Your task to perform on an android device: set default search engine in the chrome app Image 0: 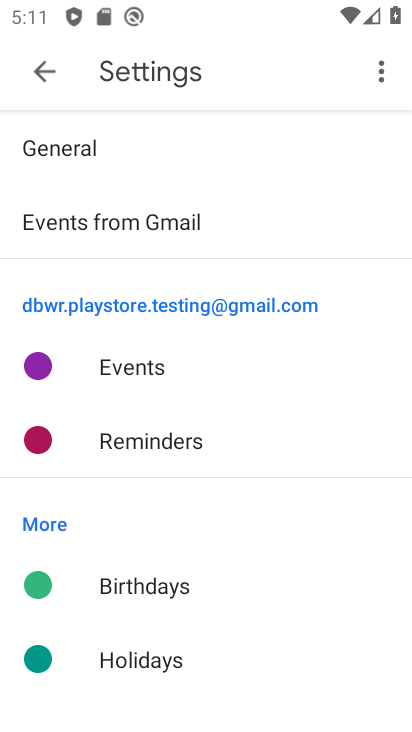
Step 0: press home button
Your task to perform on an android device: set default search engine in the chrome app Image 1: 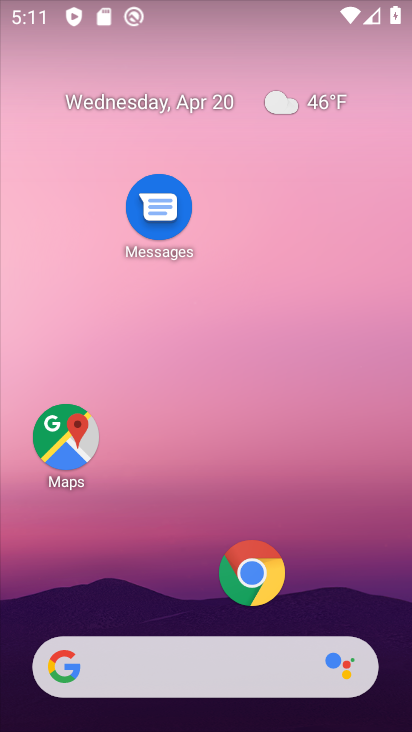
Step 1: click (260, 573)
Your task to perform on an android device: set default search engine in the chrome app Image 2: 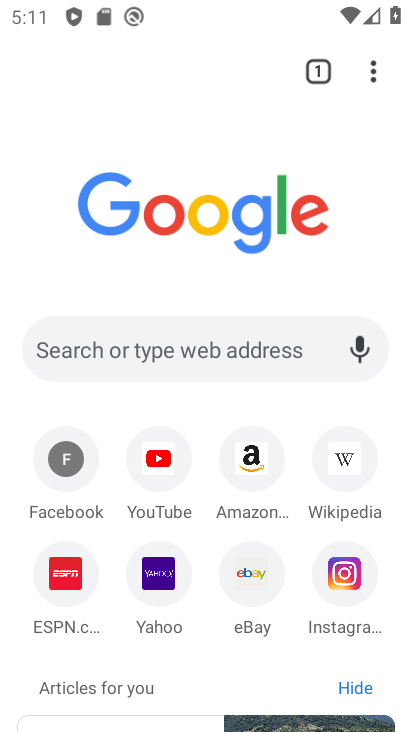
Step 2: click (374, 71)
Your task to perform on an android device: set default search engine in the chrome app Image 3: 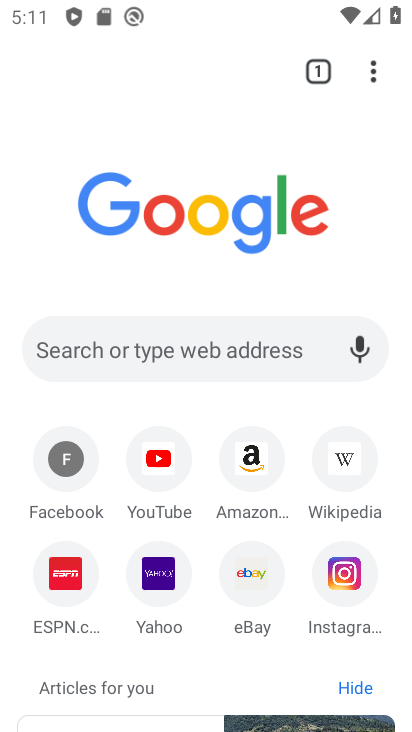
Step 3: drag from (382, 67) to (159, 589)
Your task to perform on an android device: set default search engine in the chrome app Image 4: 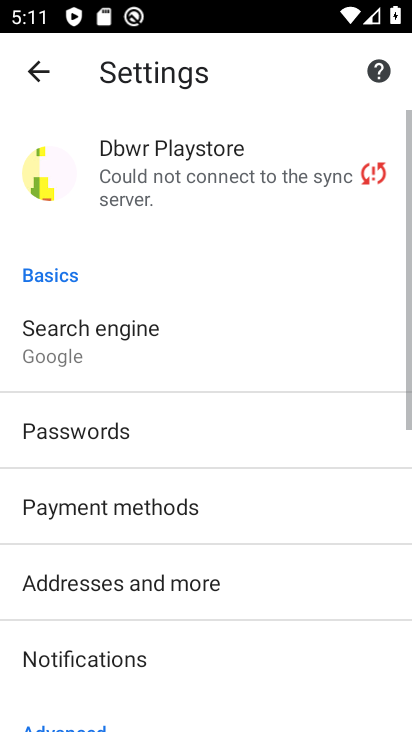
Step 4: click (89, 340)
Your task to perform on an android device: set default search engine in the chrome app Image 5: 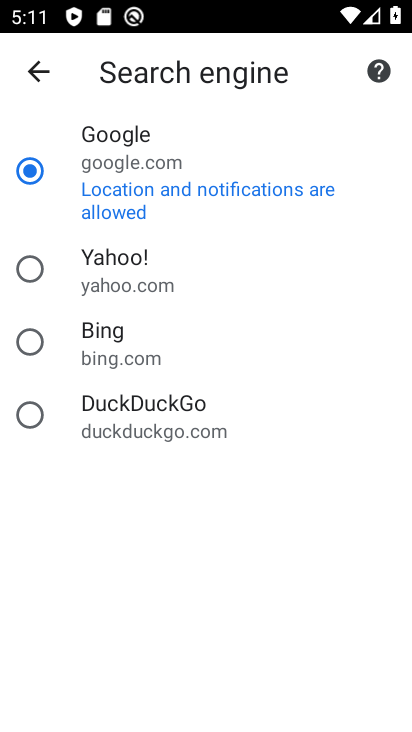
Step 5: click (89, 340)
Your task to perform on an android device: set default search engine in the chrome app Image 6: 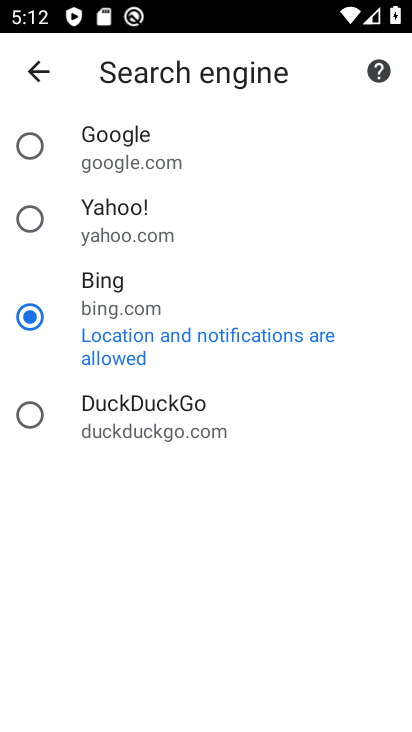
Step 6: task complete